Your task to perform on an android device: add a contact in the contacts app Image 0: 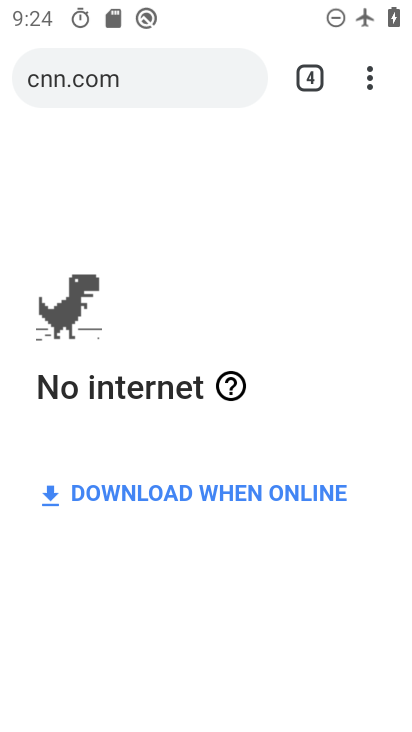
Step 0: press home button
Your task to perform on an android device: add a contact in the contacts app Image 1: 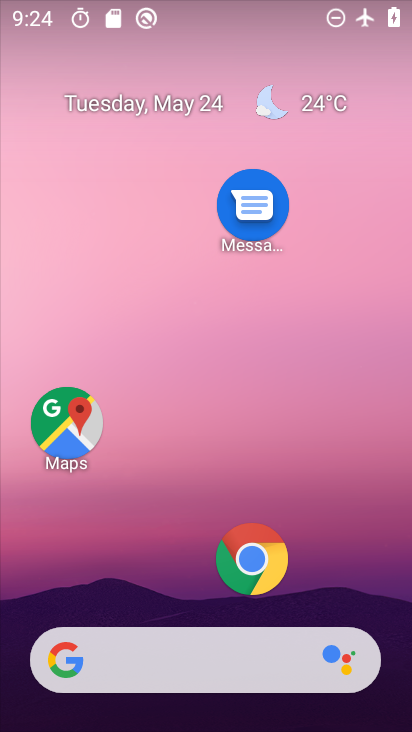
Step 1: drag from (168, 587) to (214, 237)
Your task to perform on an android device: add a contact in the contacts app Image 2: 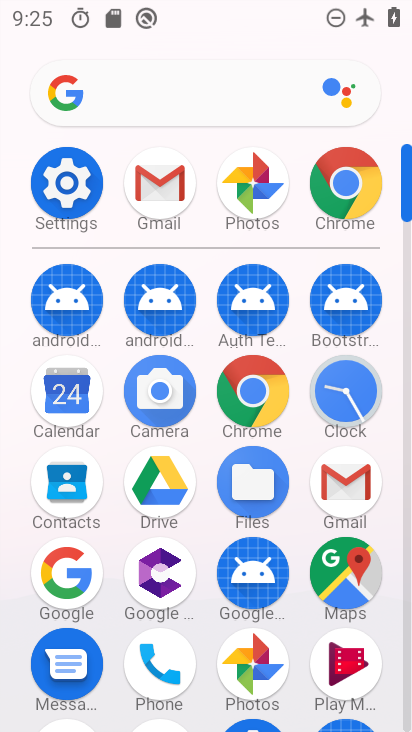
Step 2: click (65, 501)
Your task to perform on an android device: add a contact in the contacts app Image 3: 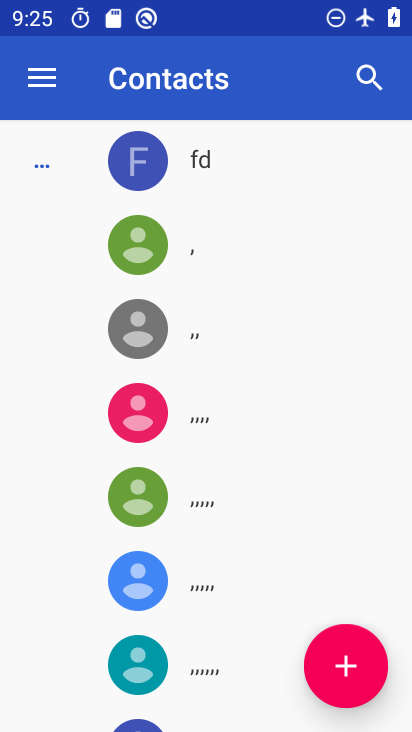
Step 3: click (330, 671)
Your task to perform on an android device: add a contact in the contacts app Image 4: 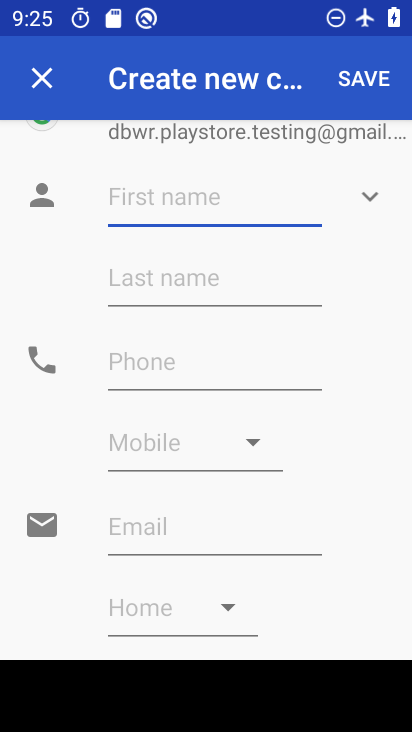
Step 4: type "chckj"
Your task to perform on an android device: add a contact in the contacts app Image 5: 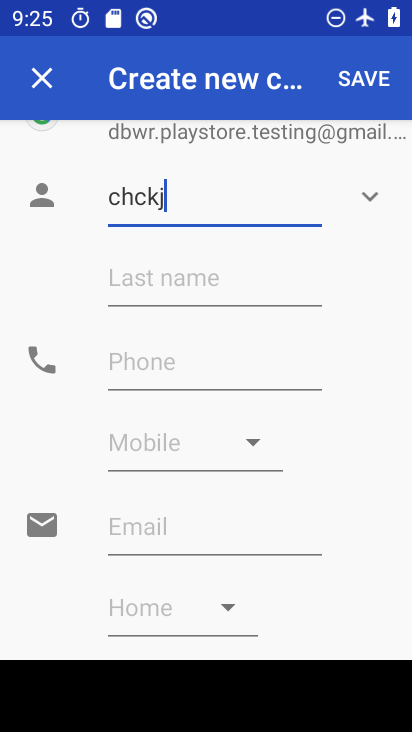
Step 5: click (150, 356)
Your task to perform on an android device: add a contact in the contacts app Image 6: 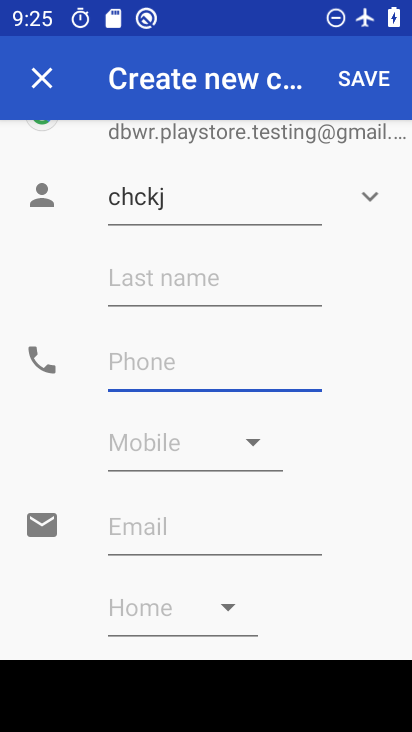
Step 6: type "9876857578"
Your task to perform on an android device: add a contact in the contacts app Image 7: 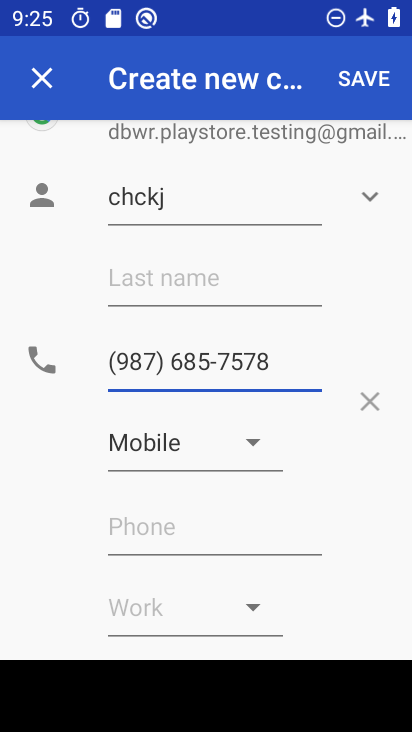
Step 7: click (367, 62)
Your task to perform on an android device: add a contact in the contacts app Image 8: 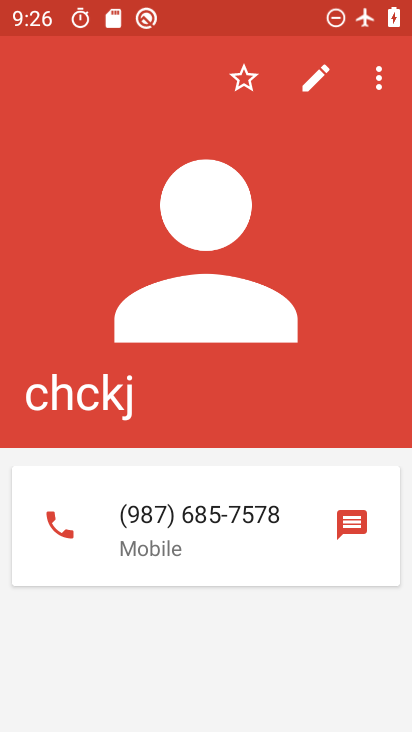
Step 8: task complete